Your task to perform on an android device: set the stopwatch Image 0: 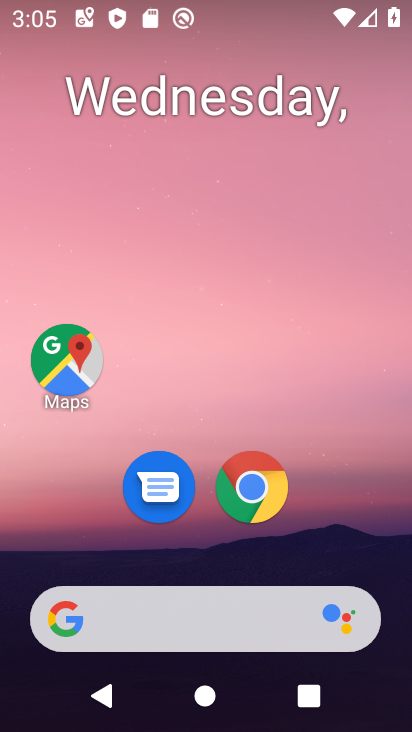
Step 0: drag from (239, 609) to (247, 216)
Your task to perform on an android device: set the stopwatch Image 1: 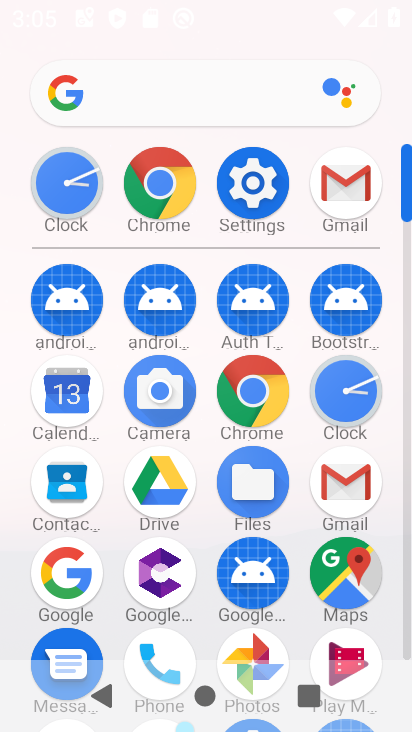
Step 1: click (351, 415)
Your task to perform on an android device: set the stopwatch Image 2: 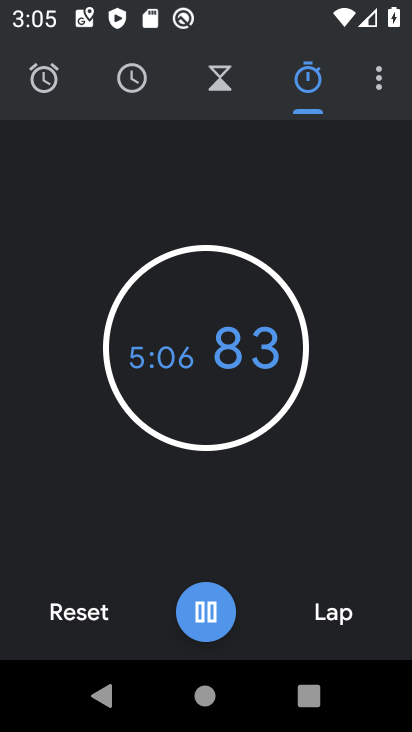
Step 2: task complete